Your task to perform on an android device: Search for seafood restaurants on Google Maps Image 0: 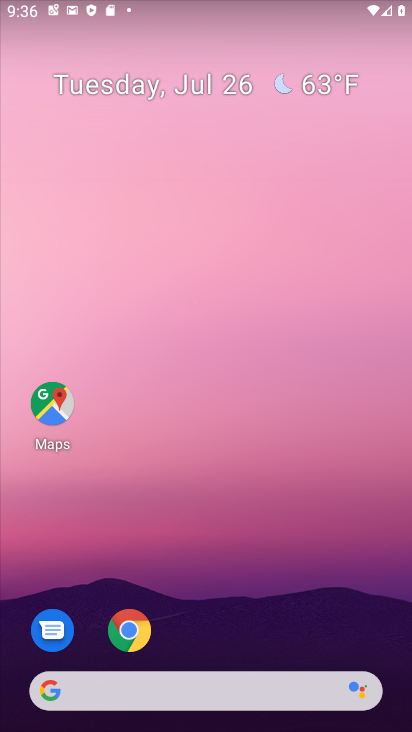
Step 0: press home button
Your task to perform on an android device: Search for seafood restaurants on Google Maps Image 1: 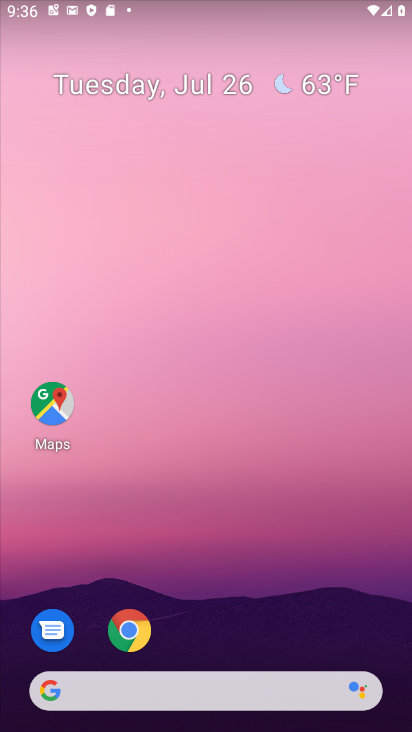
Step 1: click (49, 396)
Your task to perform on an android device: Search for seafood restaurants on Google Maps Image 2: 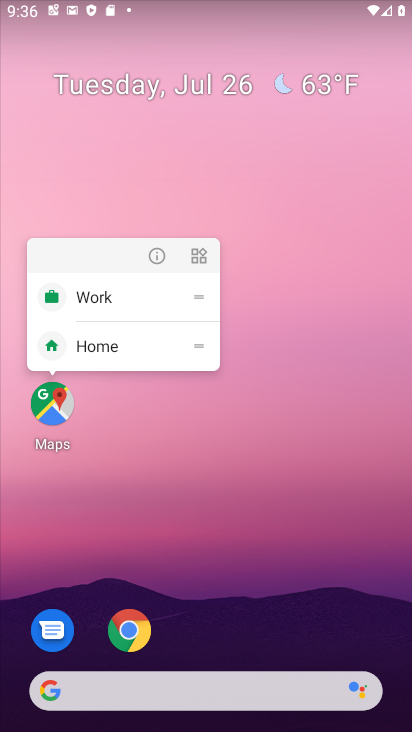
Step 2: click (50, 396)
Your task to perform on an android device: Search for seafood restaurants on Google Maps Image 3: 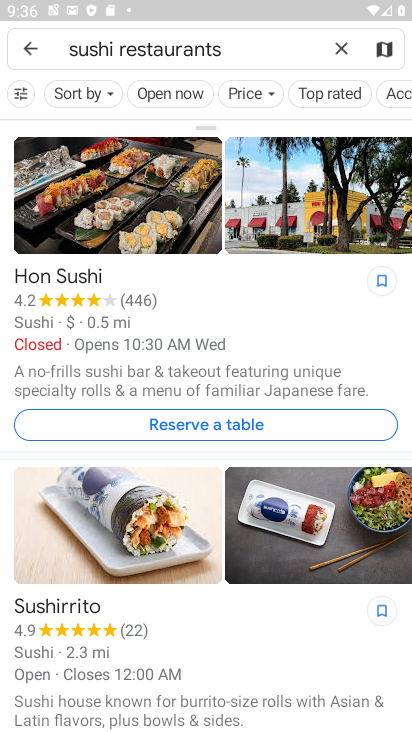
Step 3: drag from (221, 676) to (225, 266)
Your task to perform on an android device: Search for seafood restaurants on Google Maps Image 4: 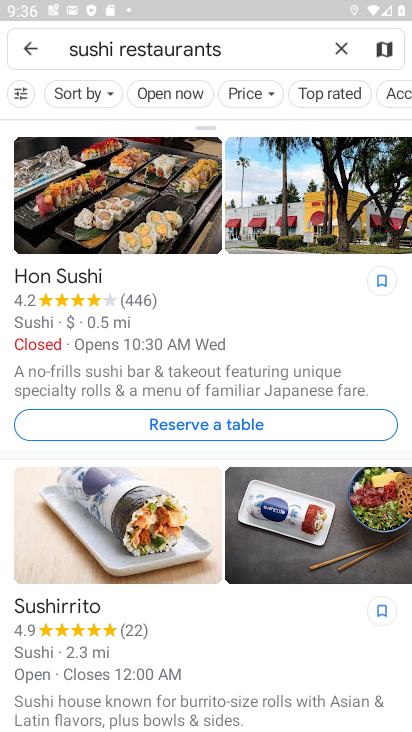
Step 4: drag from (228, 676) to (247, 149)
Your task to perform on an android device: Search for seafood restaurants on Google Maps Image 5: 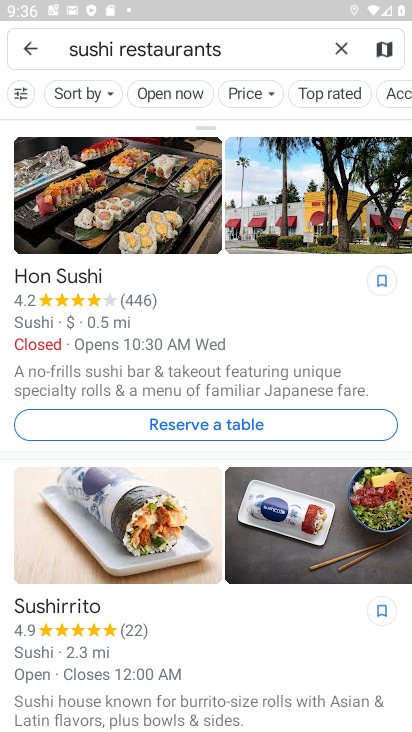
Step 5: click (340, 44)
Your task to perform on an android device: Search for seafood restaurants on Google Maps Image 6: 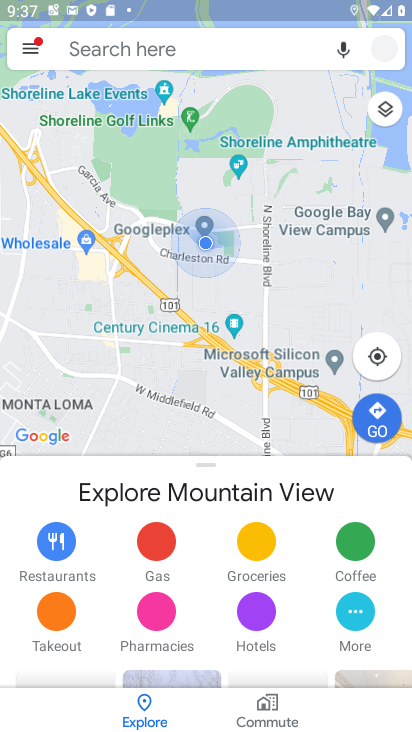
Step 6: click (106, 38)
Your task to perform on an android device: Search for seafood restaurants on Google Maps Image 7: 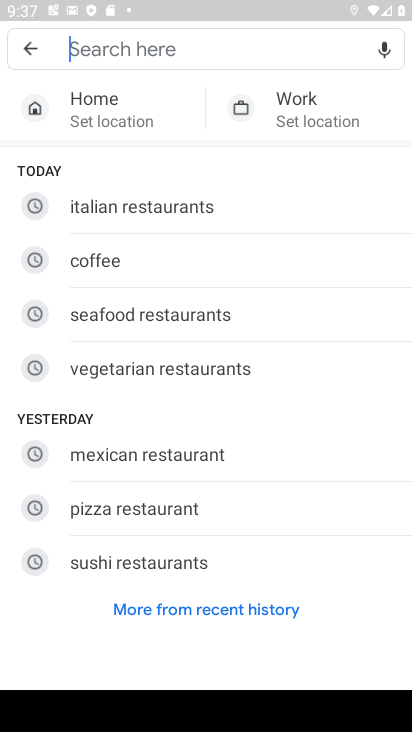
Step 7: click (148, 317)
Your task to perform on an android device: Search for seafood restaurants on Google Maps Image 8: 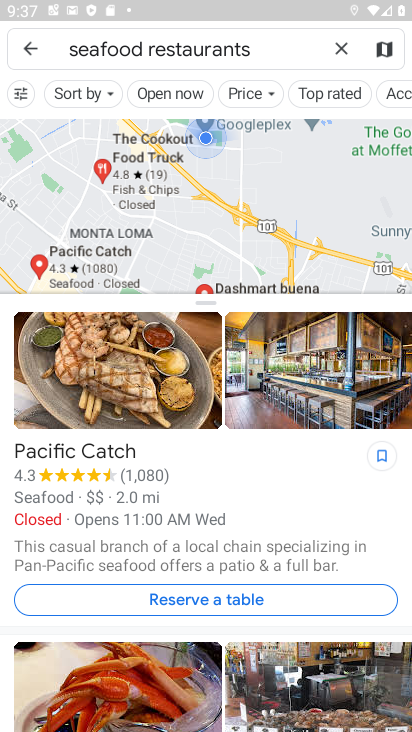
Step 8: task complete